Your task to perform on an android device: Search for razer deathadder on target.com, select the first entry, add it to the cart, then select checkout. Image 0: 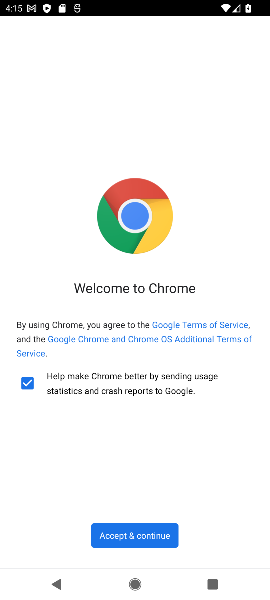
Step 0: click (144, 538)
Your task to perform on an android device: Search for razer deathadder on target.com, select the first entry, add it to the cart, then select checkout. Image 1: 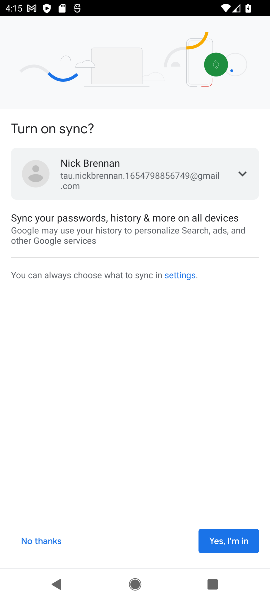
Step 1: click (216, 534)
Your task to perform on an android device: Search for razer deathadder on target.com, select the first entry, add it to the cart, then select checkout. Image 2: 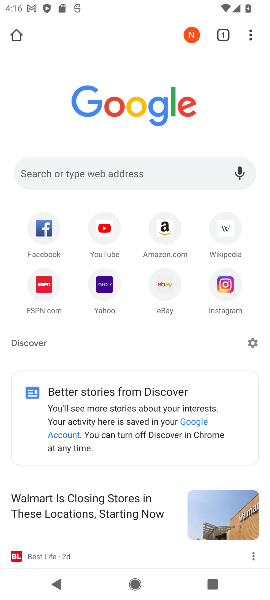
Step 2: click (67, 172)
Your task to perform on an android device: Search for razer deathadder on target.com, select the first entry, add it to the cart, then select checkout. Image 3: 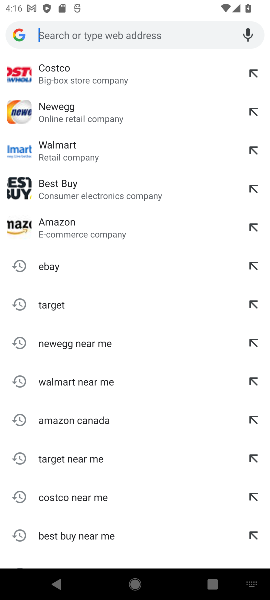
Step 3: type " target.com"
Your task to perform on an android device: Search for razer deathadder on target.com, select the first entry, add it to the cart, then select checkout. Image 4: 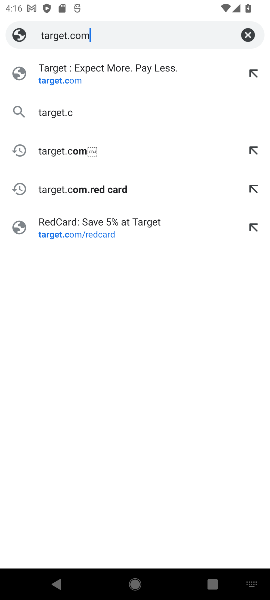
Step 4: type ""
Your task to perform on an android device: Search for razer deathadder on target.com, select the first entry, add it to the cart, then select checkout. Image 5: 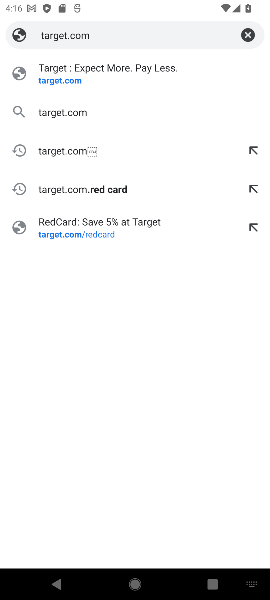
Step 5: press enter
Your task to perform on an android device: Search for razer deathadder on target.com, select the first entry, add it to the cart, then select checkout. Image 6: 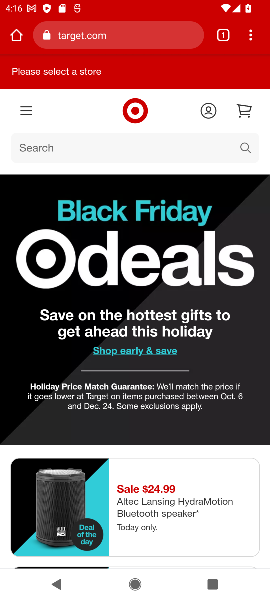
Step 6: click (64, 153)
Your task to perform on an android device: Search for razer deathadder on target.com, select the first entry, add it to the cart, then select checkout. Image 7: 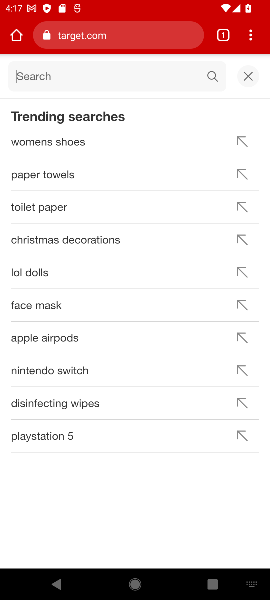
Step 7: click (51, 76)
Your task to perform on an android device: Search for razer deathadder on target.com, select the first entry, add it to the cart, then select checkout. Image 8: 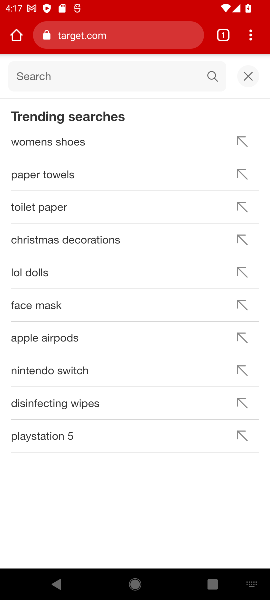
Step 8: type "razer deathadder"
Your task to perform on an android device: Search for razer deathadder on target.com, select the first entry, add it to the cart, then select checkout. Image 9: 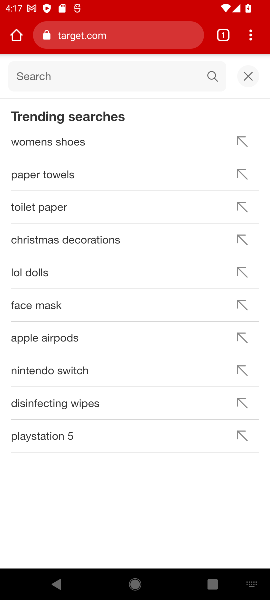
Step 9: type ""
Your task to perform on an android device: Search for razer deathadder on target.com, select the first entry, add it to the cart, then select checkout. Image 10: 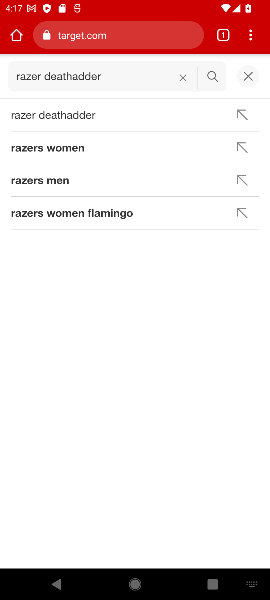
Step 10: press enter
Your task to perform on an android device: Search for razer deathadder on target.com, select the first entry, add it to the cart, then select checkout. Image 11: 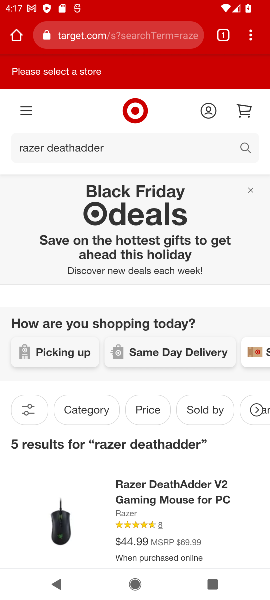
Step 11: click (133, 498)
Your task to perform on an android device: Search for razer deathadder on target.com, select the first entry, add it to the cart, then select checkout. Image 12: 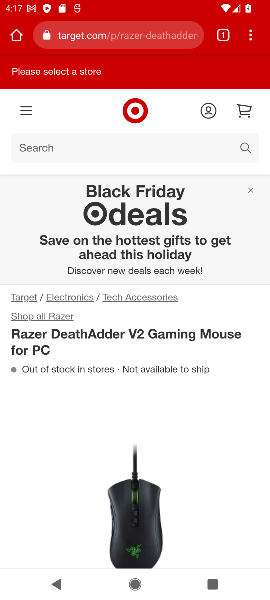
Step 12: drag from (122, 397) to (130, 350)
Your task to perform on an android device: Search for razer deathadder on target.com, select the first entry, add it to the cart, then select checkout. Image 13: 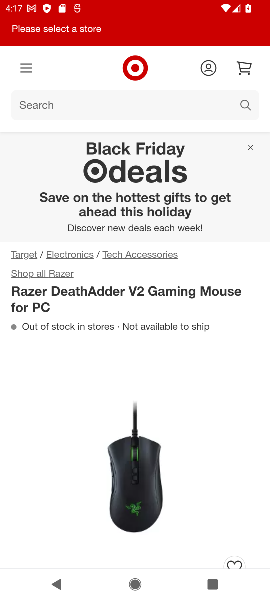
Step 13: drag from (130, 350) to (137, 252)
Your task to perform on an android device: Search for razer deathadder on target.com, select the first entry, add it to the cart, then select checkout. Image 14: 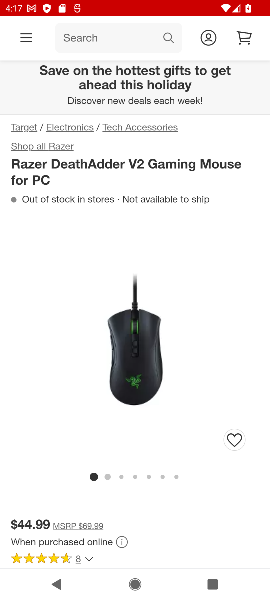
Step 14: drag from (34, 446) to (57, 217)
Your task to perform on an android device: Search for razer deathadder on target.com, select the first entry, add it to the cart, then select checkout. Image 15: 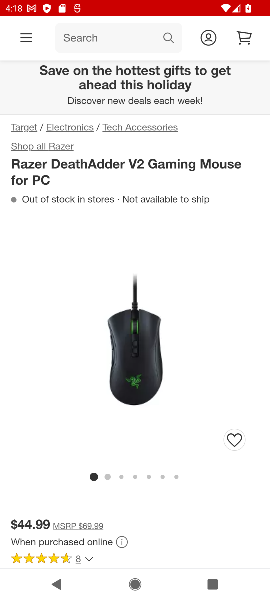
Step 15: drag from (36, 392) to (37, 196)
Your task to perform on an android device: Search for razer deathadder on target.com, select the first entry, add it to the cart, then select checkout. Image 16: 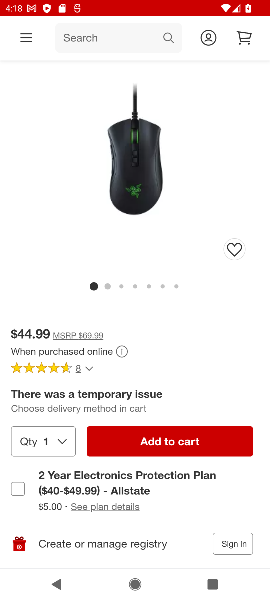
Step 16: click (151, 446)
Your task to perform on an android device: Search for razer deathadder on target.com, select the first entry, add it to the cart, then select checkout. Image 17: 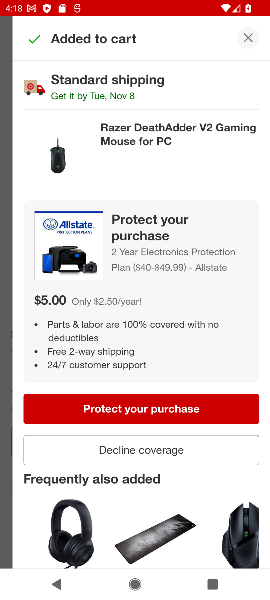
Step 17: click (174, 412)
Your task to perform on an android device: Search for razer deathadder on target.com, select the first entry, add it to the cart, then select checkout. Image 18: 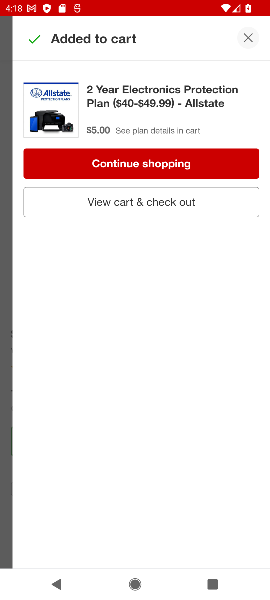
Step 18: task complete